Your task to perform on an android device: turn smart compose on in the gmail app Image 0: 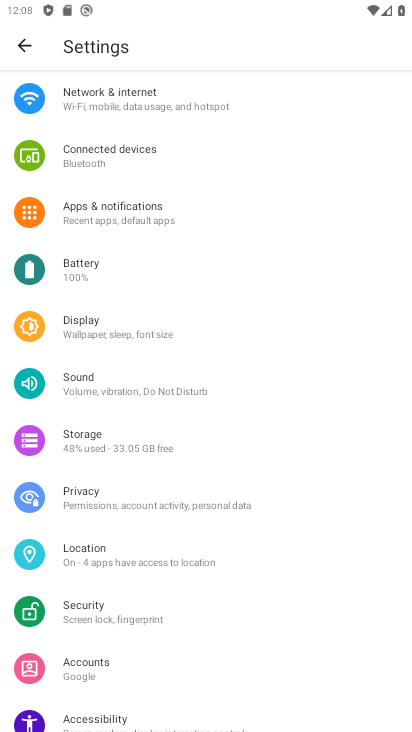
Step 0: press home button
Your task to perform on an android device: turn smart compose on in the gmail app Image 1: 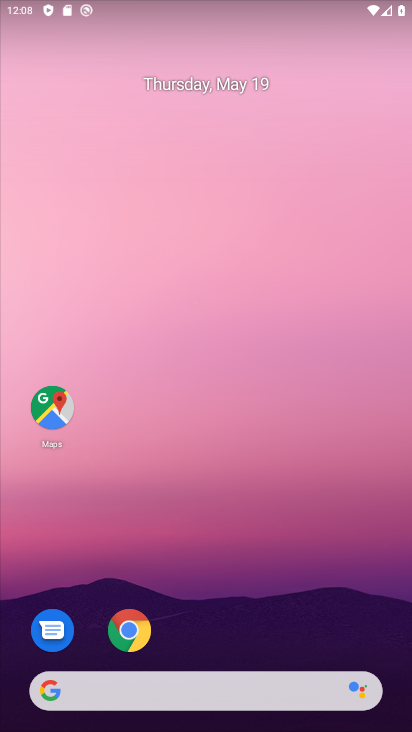
Step 1: drag from (179, 590) to (302, 267)
Your task to perform on an android device: turn smart compose on in the gmail app Image 2: 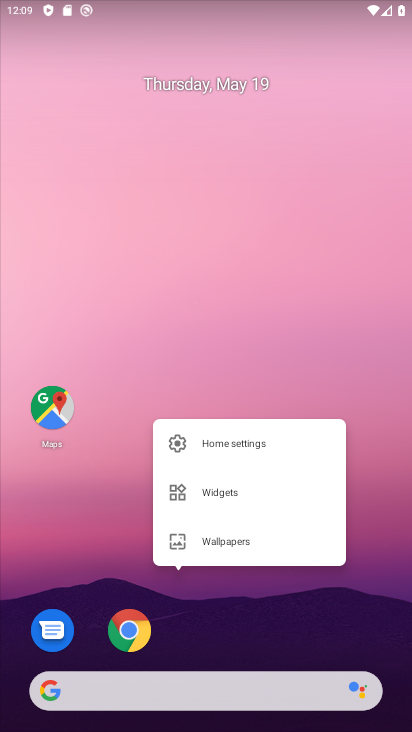
Step 2: drag from (120, 537) to (237, 166)
Your task to perform on an android device: turn smart compose on in the gmail app Image 3: 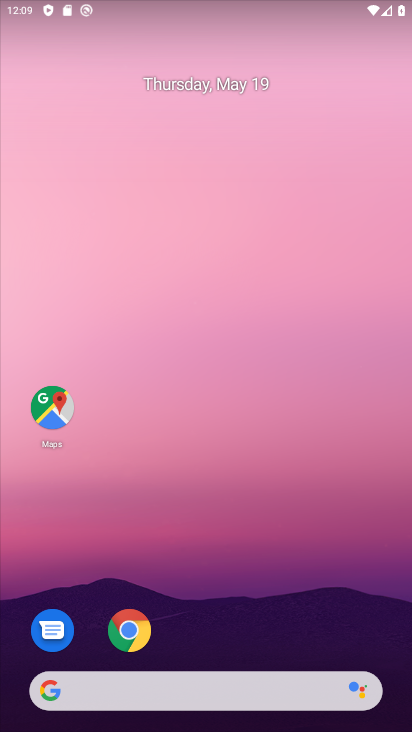
Step 3: drag from (187, 553) to (234, 237)
Your task to perform on an android device: turn smart compose on in the gmail app Image 4: 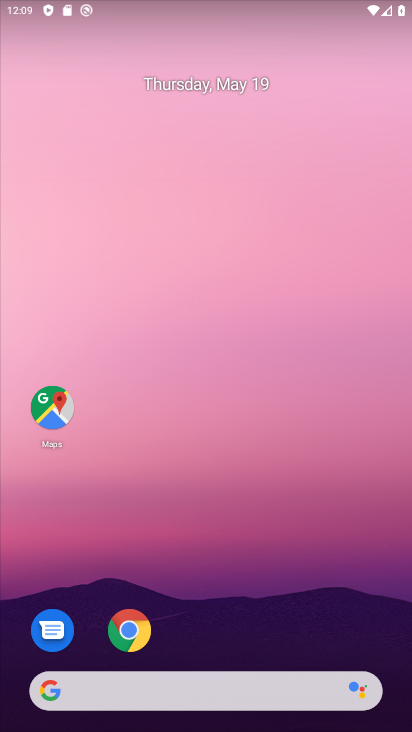
Step 4: drag from (205, 632) to (268, 344)
Your task to perform on an android device: turn smart compose on in the gmail app Image 5: 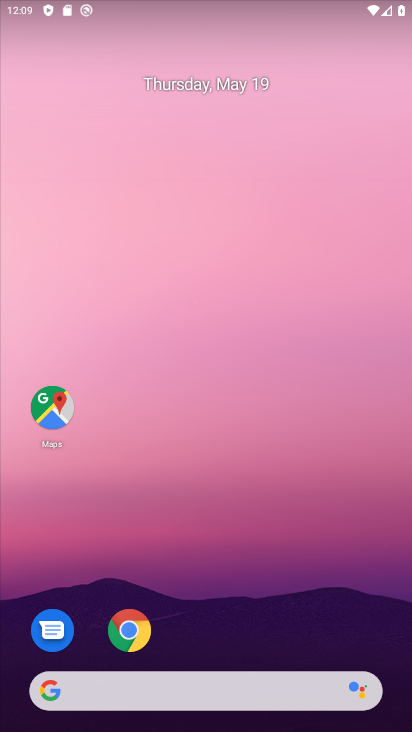
Step 5: drag from (157, 573) to (187, 148)
Your task to perform on an android device: turn smart compose on in the gmail app Image 6: 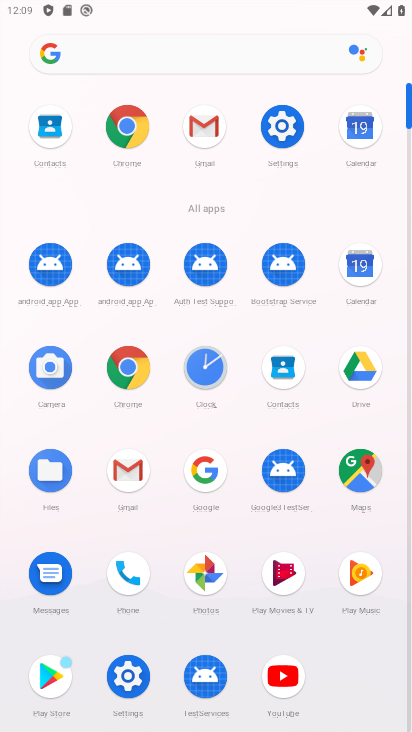
Step 6: click (205, 132)
Your task to perform on an android device: turn smart compose on in the gmail app Image 7: 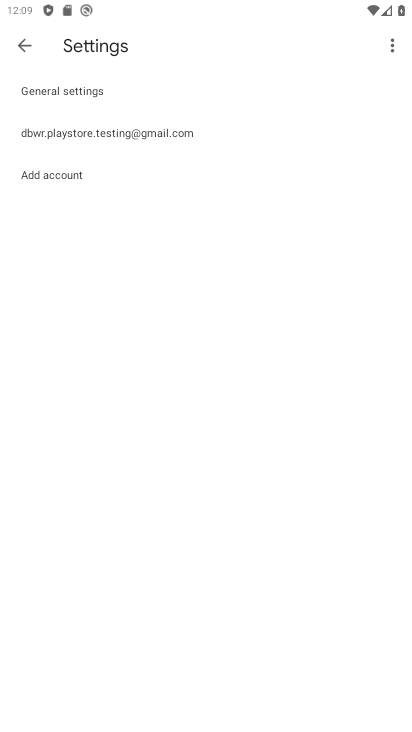
Step 7: click (147, 139)
Your task to perform on an android device: turn smart compose on in the gmail app Image 8: 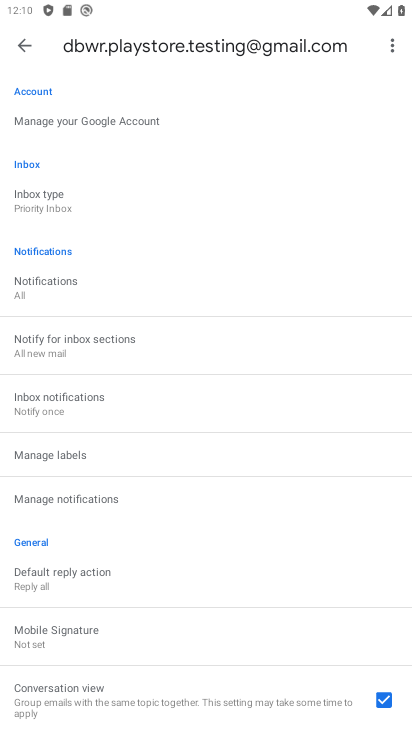
Step 8: task complete